Your task to perform on an android device: delete a single message in the gmail app Image 0: 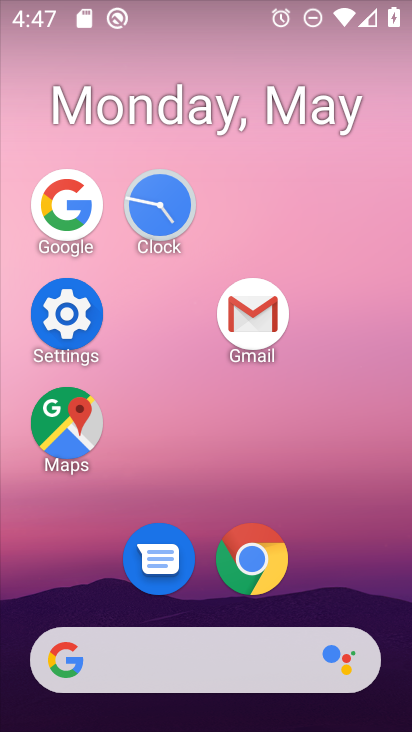
Step 0: click (260, 320)
Your task to perform on an android device: delete a single message in the gmail app Image 1: 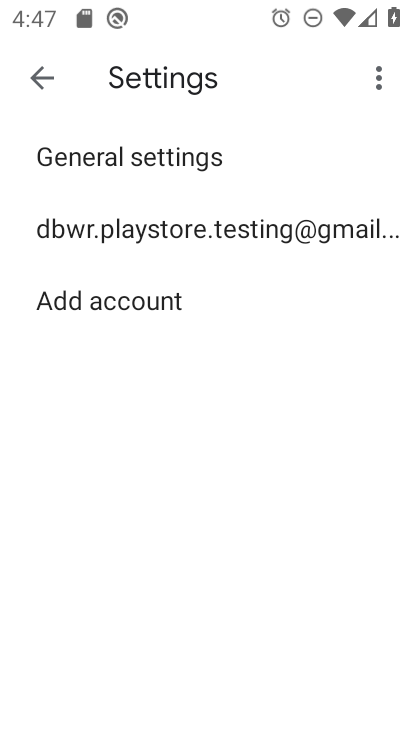
Step 1: click (42, 79)
Your task to perform on an android device: delete a single message in the gmail app Image 2: 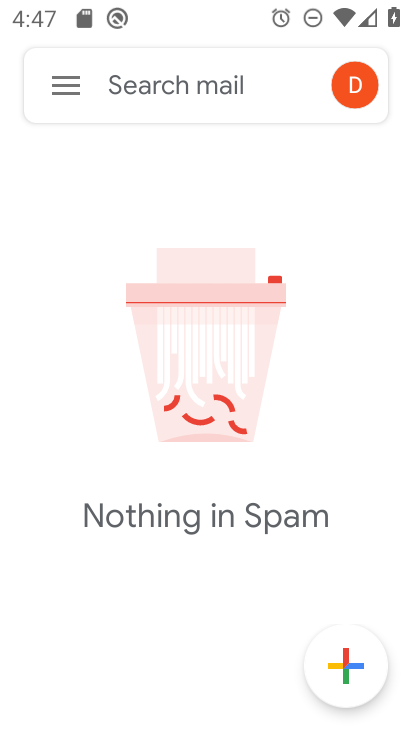
Step 2: click (42, 79)
Your task to perform on an android device: delete a single message in the gmail app Image 3: 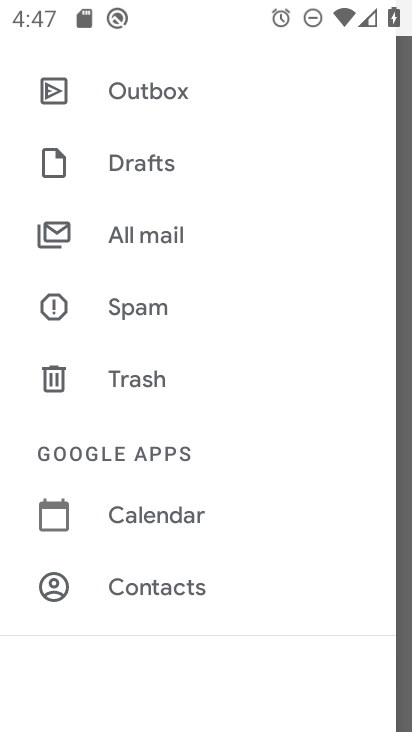
Step 3: click (190, 209)
Your task to perform on an android device: delete a single message in the gmail app Image 4: 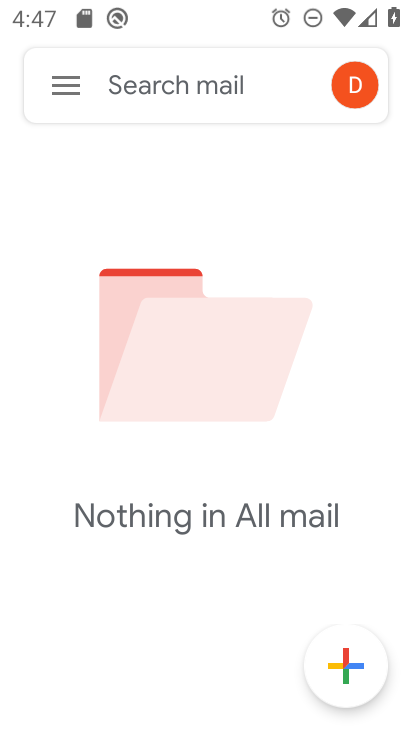
Step 4: task complete